Your task to perform on an android device: turn on data saver in the chrome app Image 0: 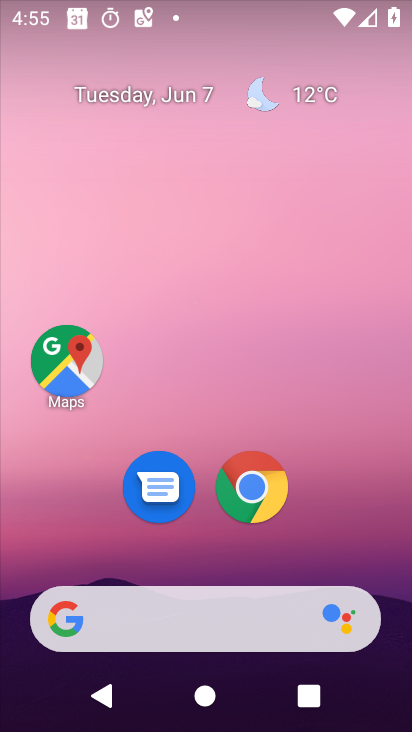
Step 0: click (252, 490)
Your task to perform on an android device: turn on data saver in the chrome app Image 1: 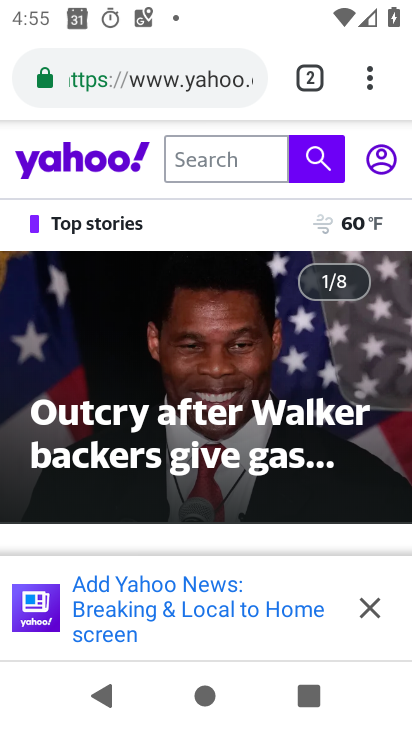
Step 1: drag from (365, 68) to (91, 547)
Your task to perform on an android device: turn on data saver in the chrome app Image 2: 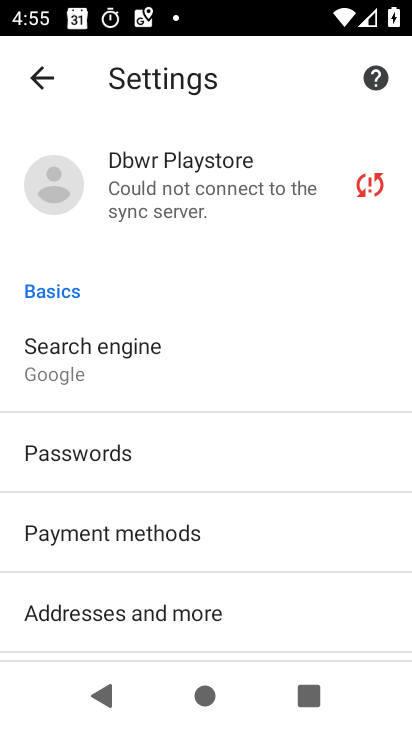
Step 2: drag from (195, 627) to (229, 46)
Your task to perform on an android device: turn on data saver in the chrome app Image 3: 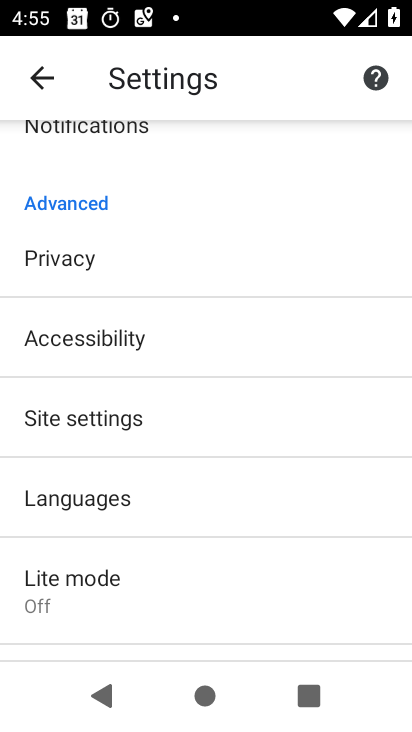
Step 3: click (66, 591)
Your task to perform on an android device: turn on data saver in the chrome app Image 4: 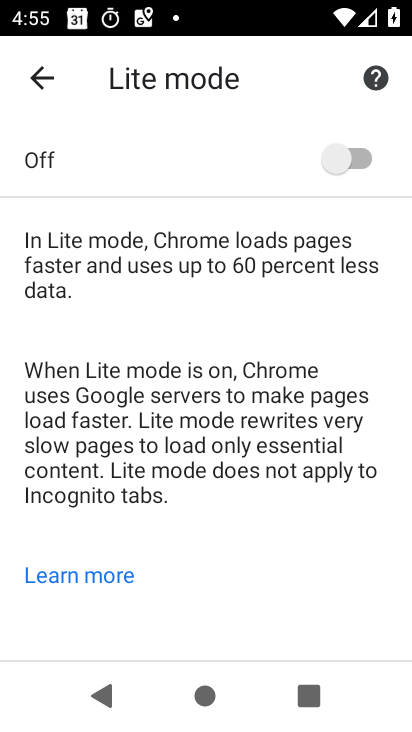
Step 4: click (338, 155)
Your task to perform on an android device: turn on data saver in the chrome app Image 5: 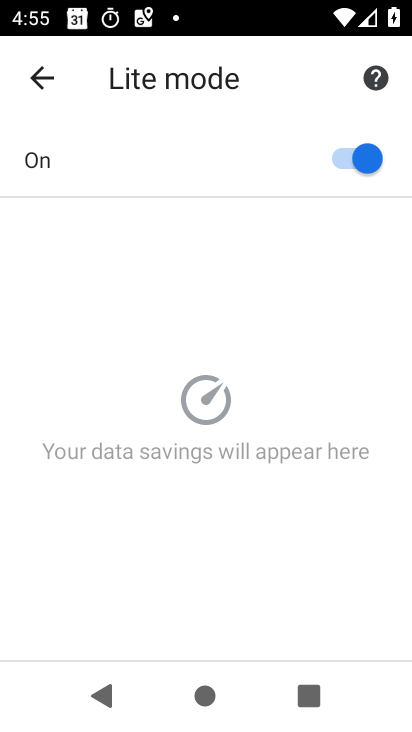
Step 5: task complete